Your task to perform on an android device: Open location settings Image 0: 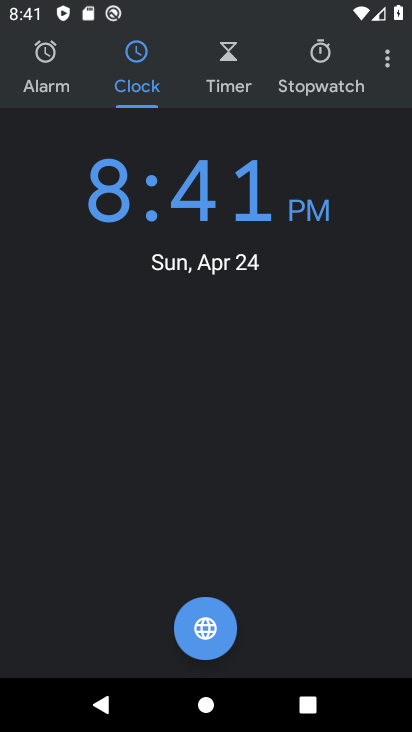
Step 0: press home button
Your task to perform on an android device: Open location settings Image 1: 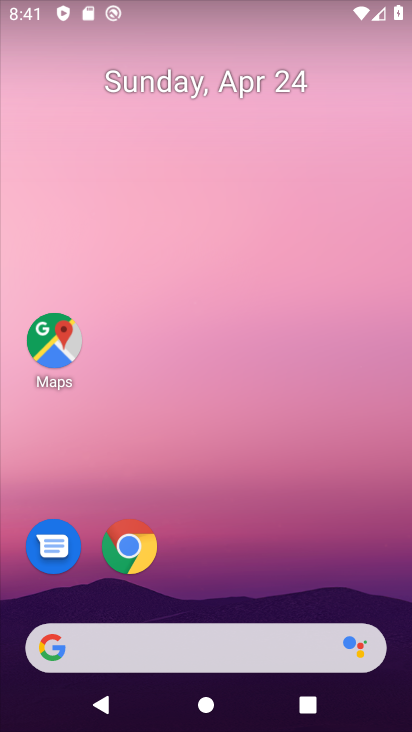
Step 1: drag from (267, 563) to (292, 221)
Your task to perform on an android device: Open location settings Image 2: 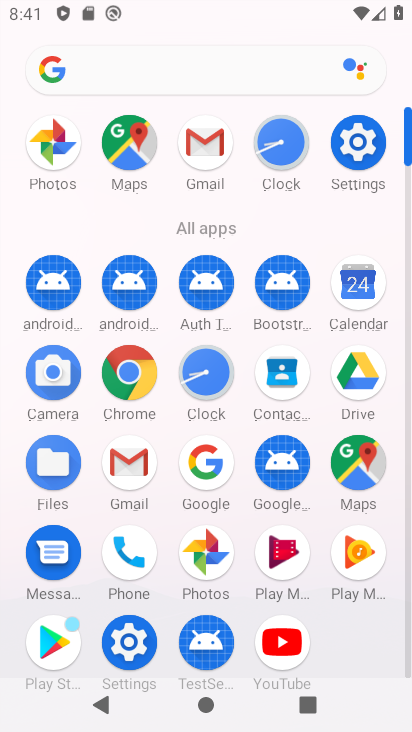
Step 2: click (131, 640)
Your task to perform on an android device: Open location settings Image 3: 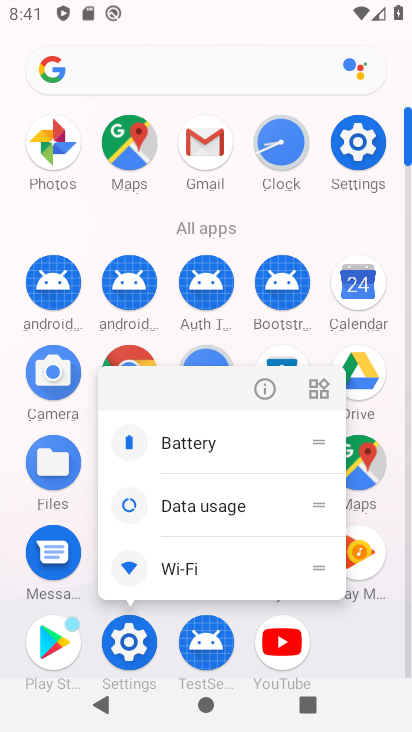
Step 3: click (128, 637)
Your task to perform on an android device: Open location settings Image 4: 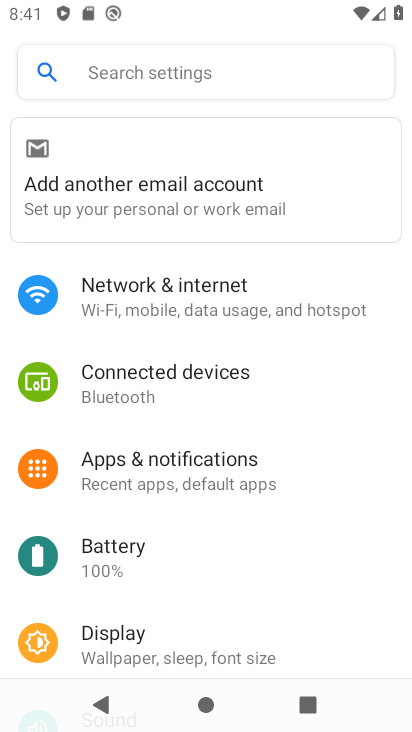
Step 4: drag from (223, 636) to (286, 186)
Your task to perform on an android device: Open location settings Image 5: 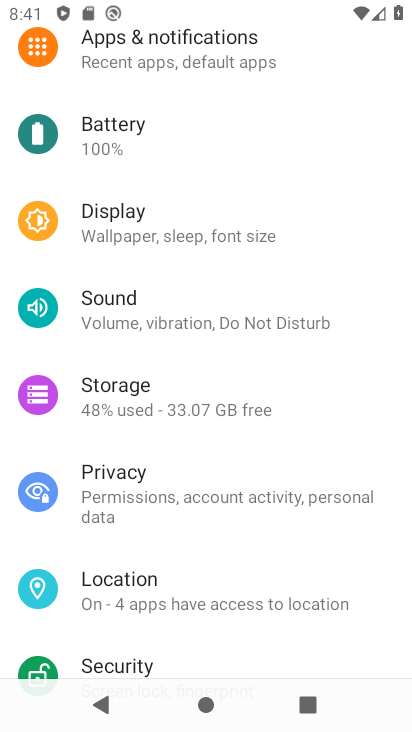
Step 5: click (142, 588)
Your task to perform on an android device: Open location settings Image 6: 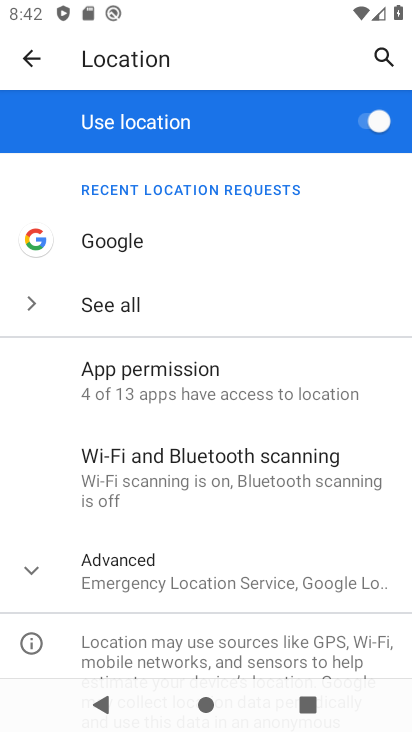
Step 6: task complete